Your task to perform on an android device: Open accessibility settings Image 0: 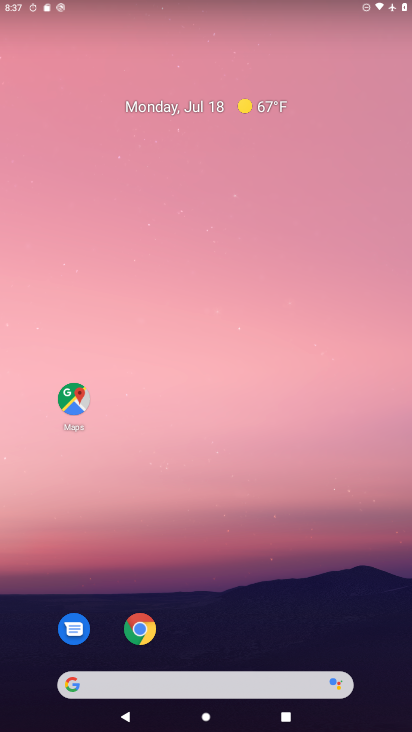
Step 0: click (182, 0)
Your task to perform on an android device: Open accessibility settings Image 1: 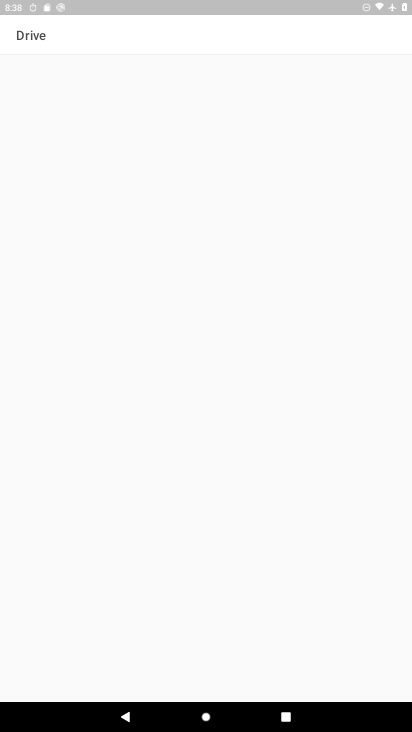
Step 1: press home button
Your task to perform on an android device: Open accessibility settings Image 2: 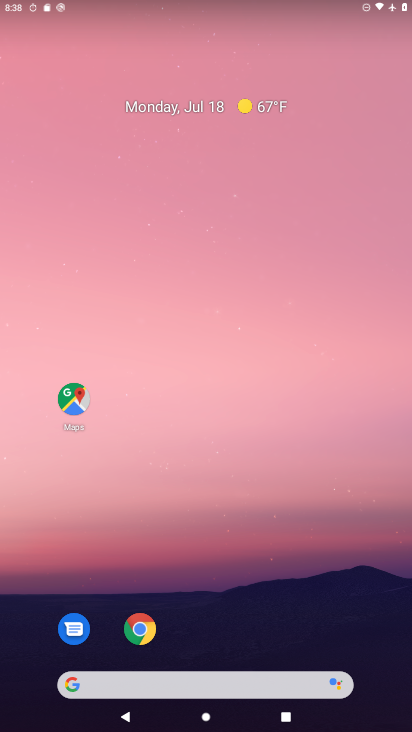
Step 2: drag from (196, 668) to (161, 90)
Your task to perform on an android device: Open accessibility settings Image 3: 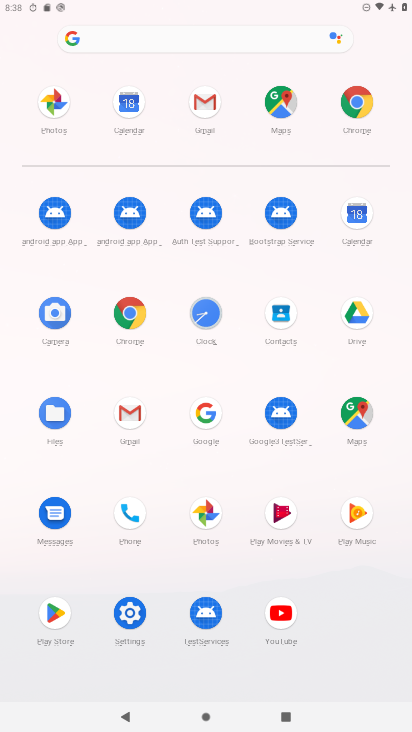
Step 3: click (133, 611)
Your task to perform on an android device: Open accessibility settings Image 4: 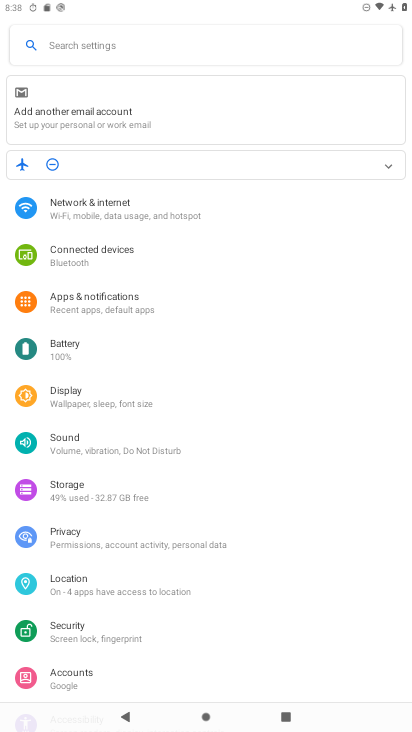
Step 4: drag from (117, 602) to (119, 155)
Your task to perform on an android device: Open accessibility settings Image 5: 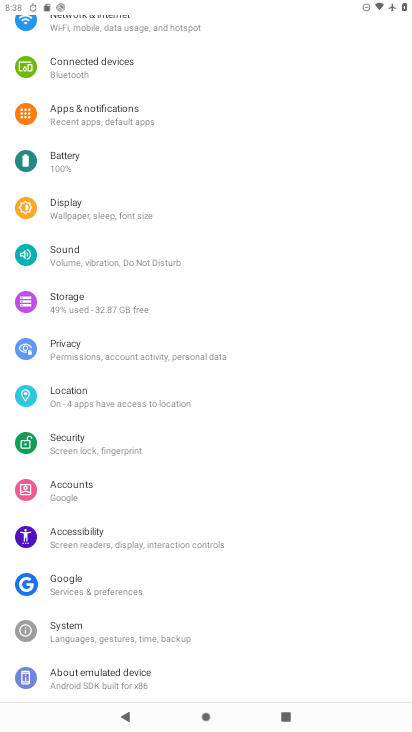
Step 5: click (89, 538)
Your task to perform on an android device: Open accessibility settings Image 6: 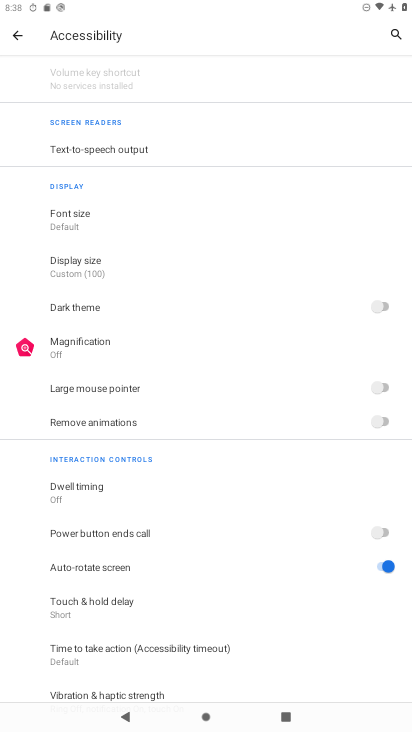
Step 6: task complete